Your task to perform on an android device: Open wifi settings Image 0: 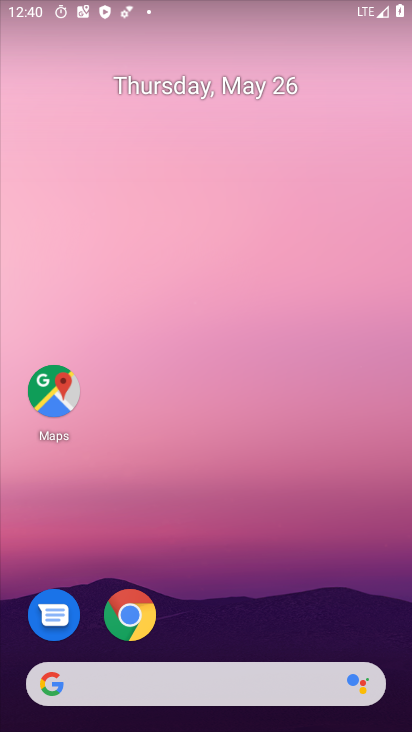
Step 0: drag from (235, 615) to (194, 148)
Your task to perform on an android device: Open wifi settings Image 1: 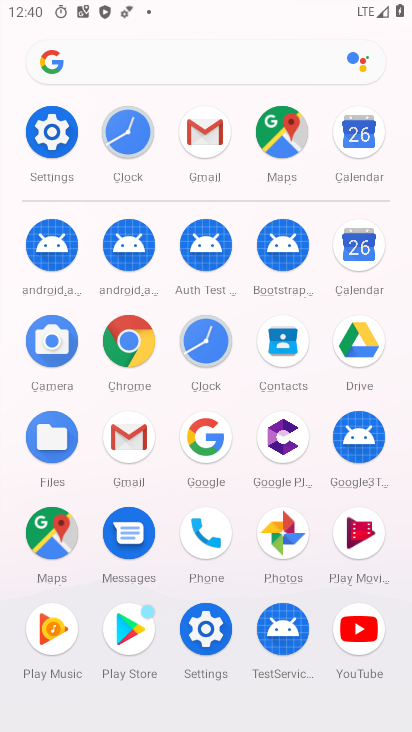
Step 1: click (50, 136)
Your task to perform on an android device: Open wifi settings Image 2: 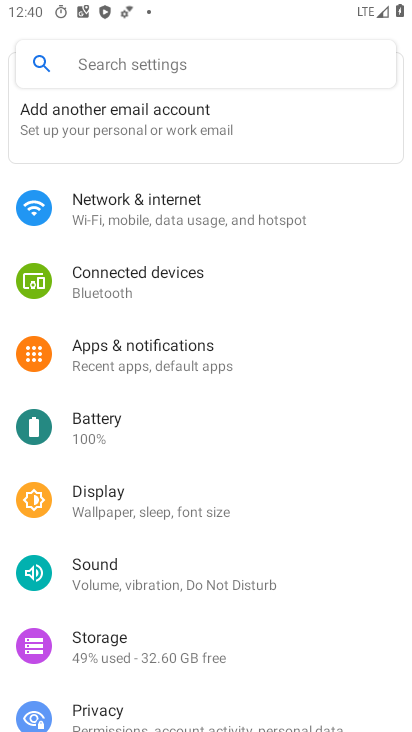
Step 2: click (127, 215)
Your task to perform on an android device: Open wifi settings Image 3: 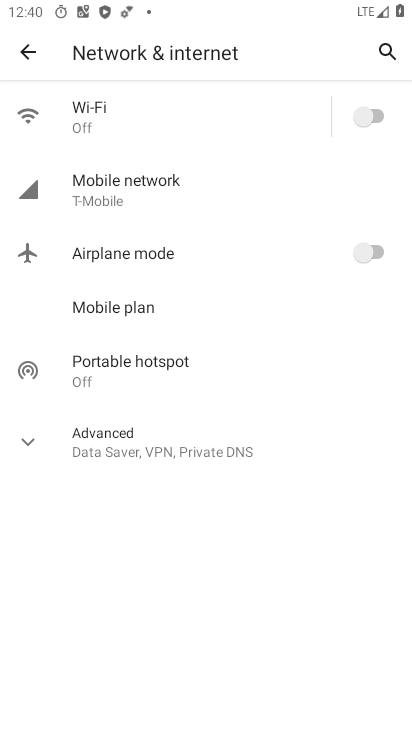
Step 3: click (105, 120)
Your task to perform on an android device: Open wifi settings Image 4: 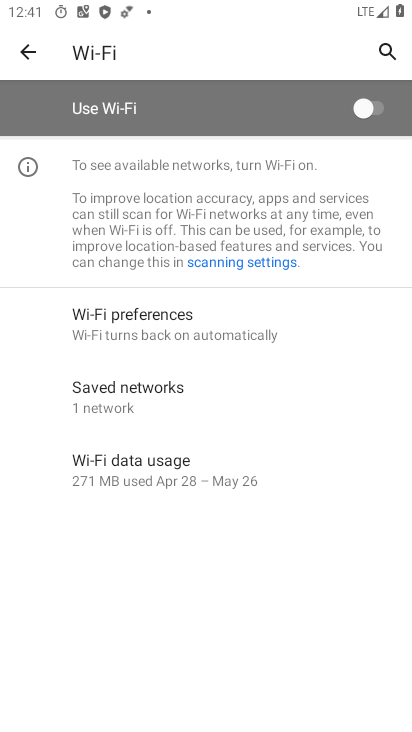
Step 4: task complete